Your task to perform on an android device: Open internet settings Image 0: 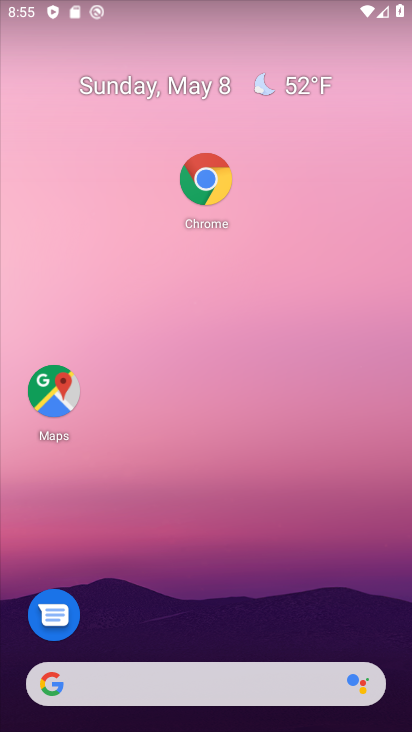
Step 0: drag from (203, 661) to (277, 76)
Your task to perform on an android device: Open internet settings Image 1: 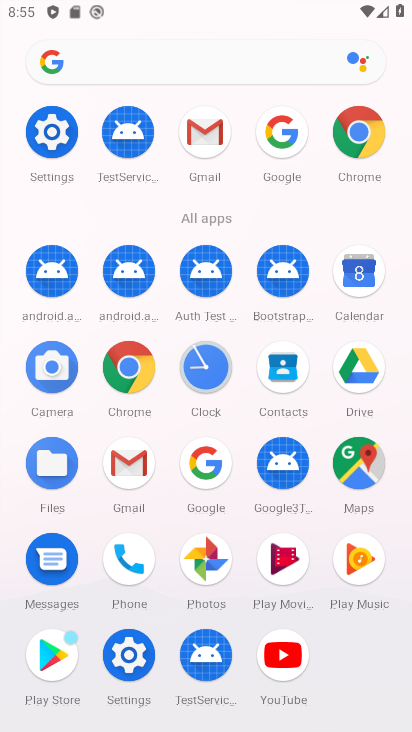
Step 1: click (43, 140)
Your task to perform on an android device: Open internet settings Image 2: 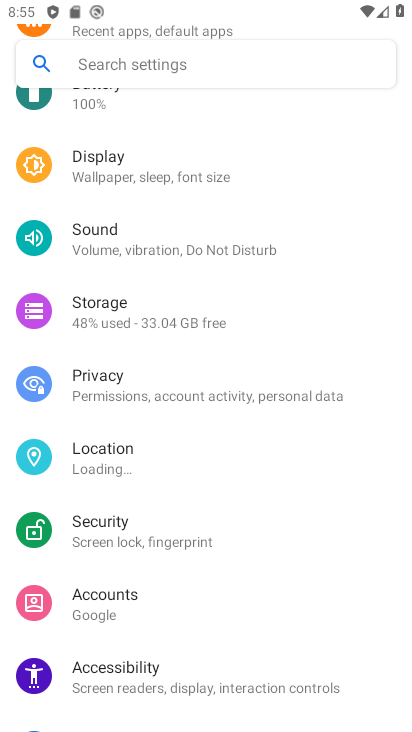
Step 2: drag from (268, 109) to (231, 612)
Your task to perform on an android device: Open internet settings Image 3: 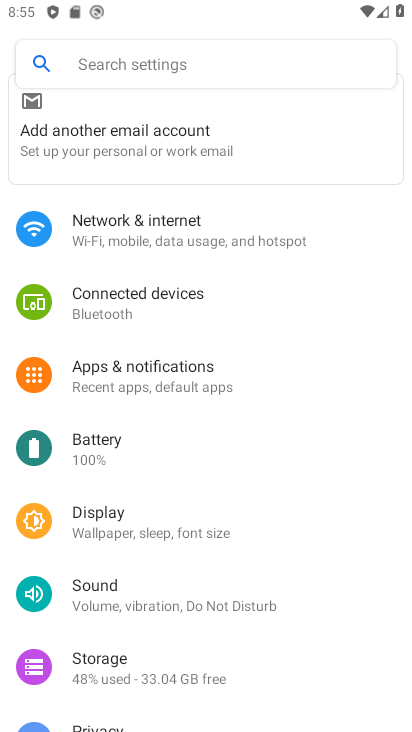
Step 3: click (206, 234)
Your task to perform on an android device: Open internet settings Image 4: 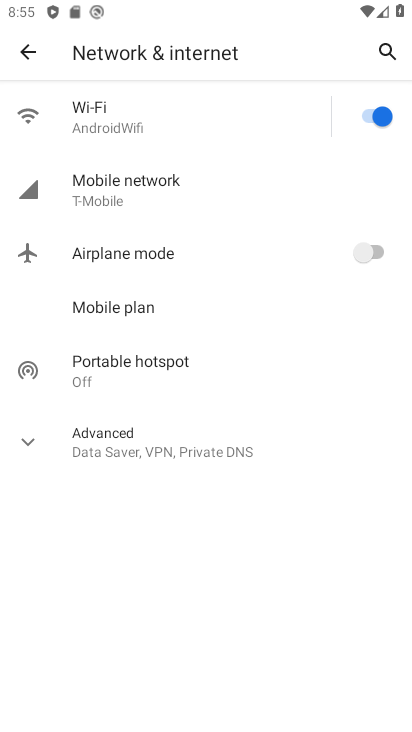
Step 4: click (110, 440)
Your task to perform on an android device: Open internet settings Image 5: 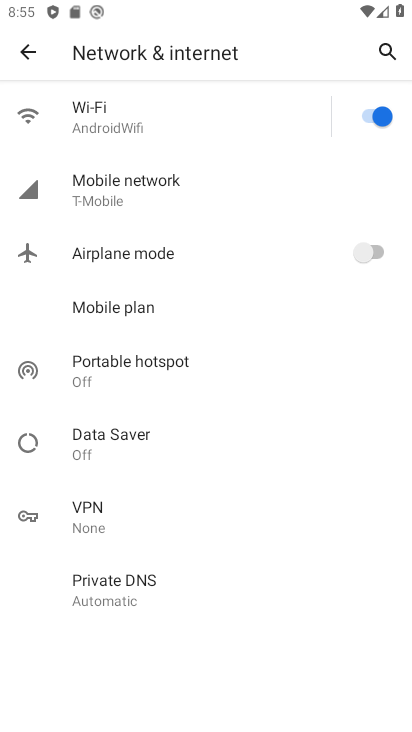
Step 5: click (123, 178)
Your task to perform on an android device: Open internet settings Image 6: 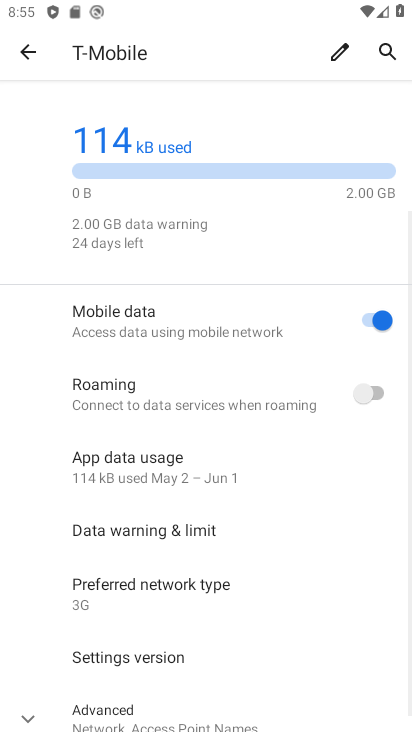
Step 6: task complete